Your task to perform on an android device: Open the calendar and show me this week's events? Image 0: 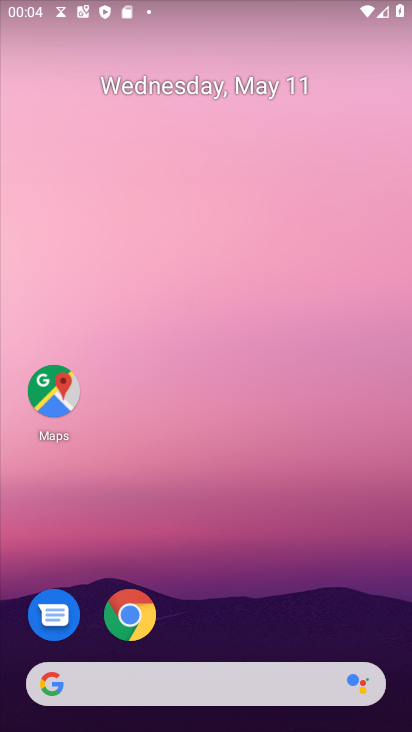
Step 0: drag from (263, 567) to (237, 64)
Your task to perform on an android device: Open the calendar and show me this week's events? Image 1: 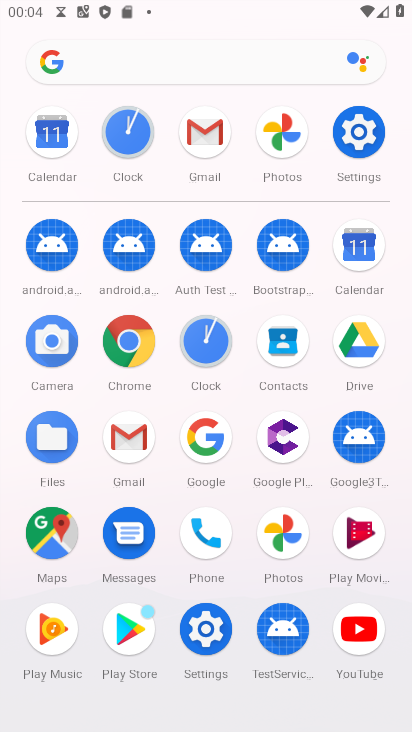
Step 1: click (355, 246)
Your task to perform on an android device: Open the calendar and show me this week's events? Image 2: 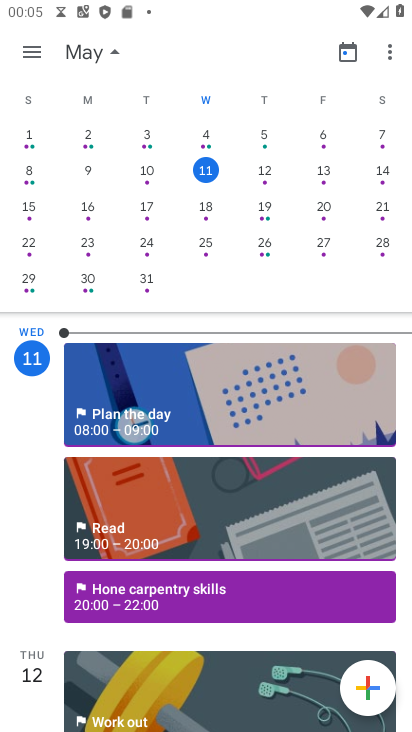
Step 2: click (349, 54)
Your task to perform on an android device: Open the calendar and show me this week's events? Image 3: 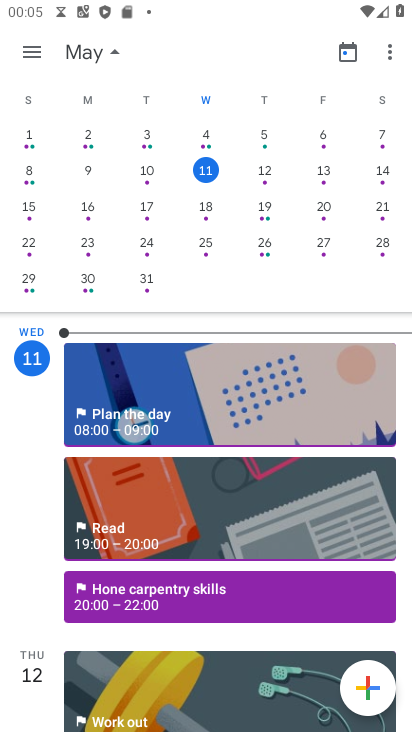
Step 3: click (35, 55)
Your task to perform on an android device: Open the calendar and show me this week's events? Image 4: 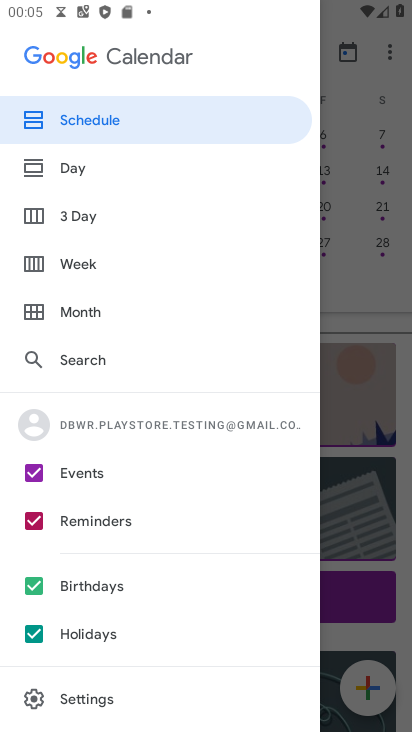
Step 4: click (113, 115)
Your task to perform on an android device: Open the calendar and show me this week's events? Image 5: 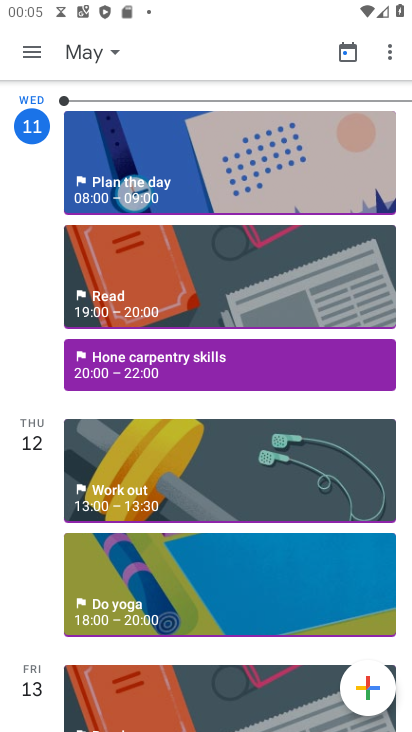
Step 5: task complete